Your task to perform on an android device: set the stopwatch Image 0: 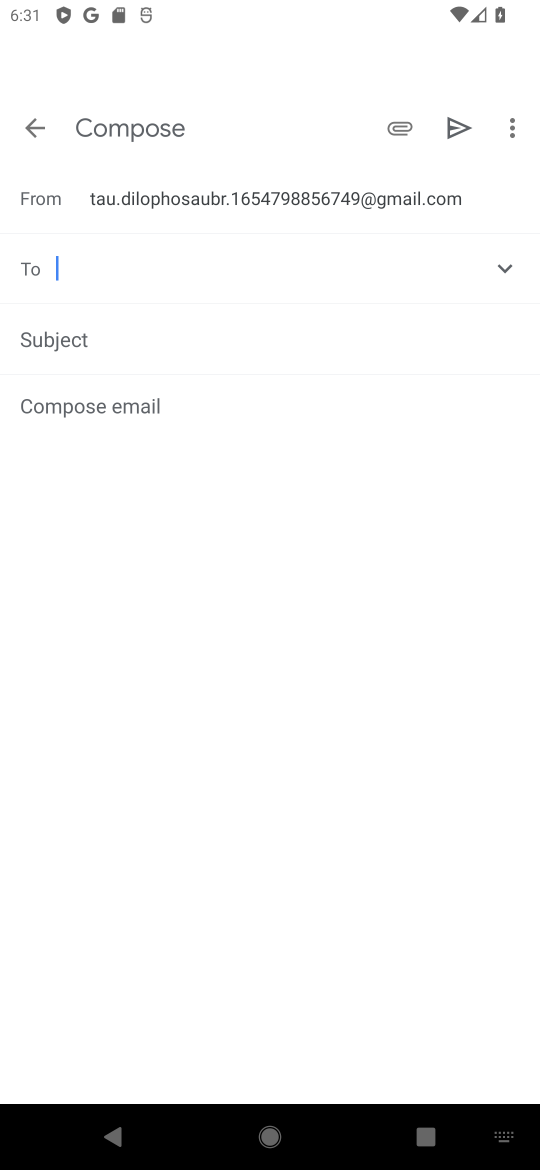
Step 0: press home button
Your task to perform on an android device: set the stopwatch Image 1: 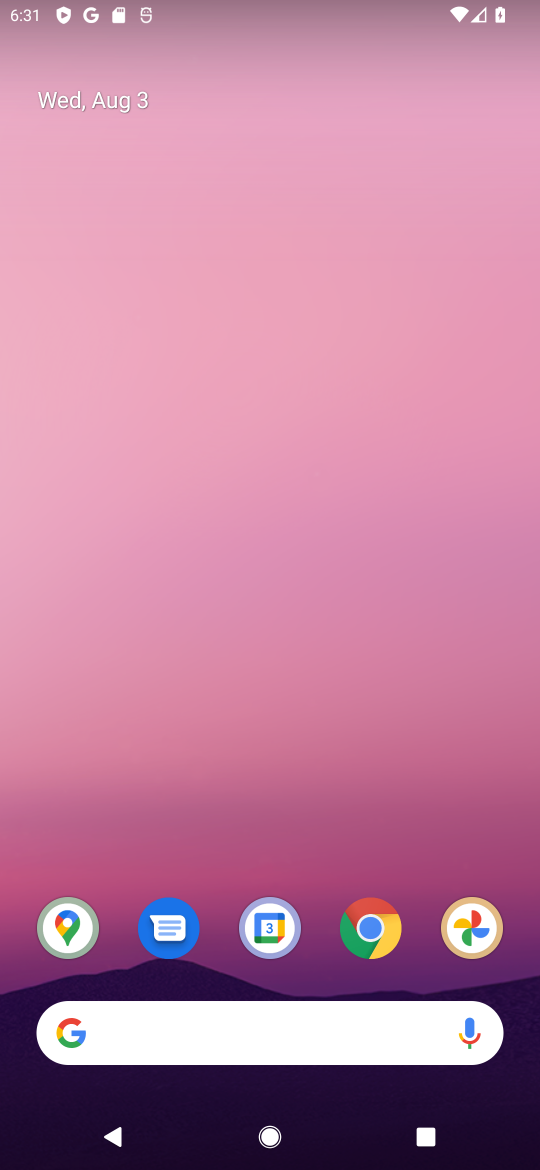
Step 1: drag from (339, 844) to (375, 228)
Your task to perform on an android device: set the stopwatch Image 2: 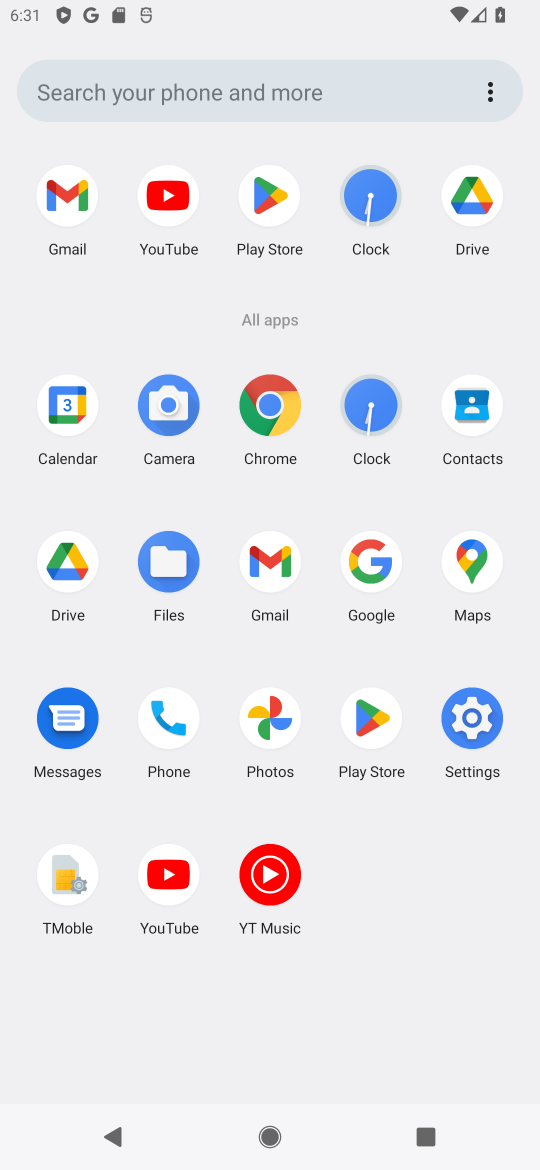
Step 2: click (377, 416)
Your task to perform on an android device: set the stopwatch Image 3: 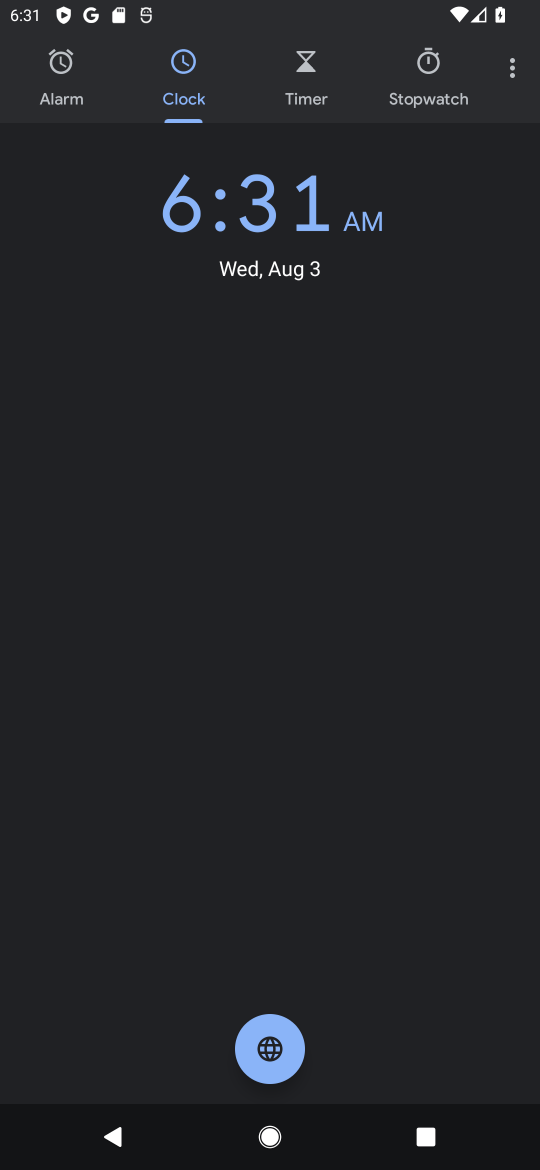
Step 3: click (428, 79)
Your task to perform on an android device: set the stopwatch Image 4: 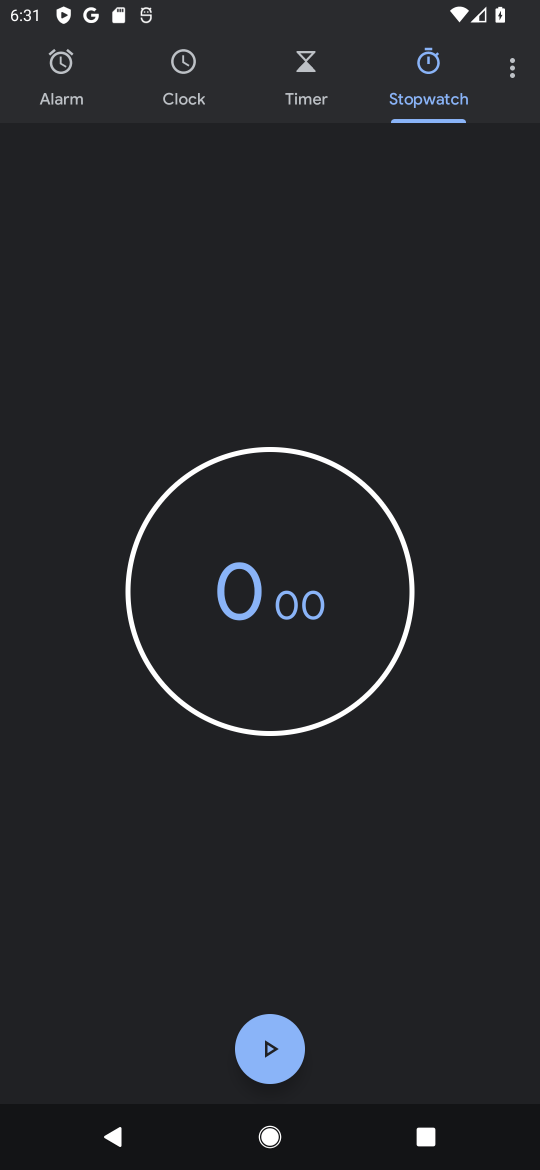
Step 4: click (275, 1052)
Your task to perform on an android device: set the stopwatch Image 5: 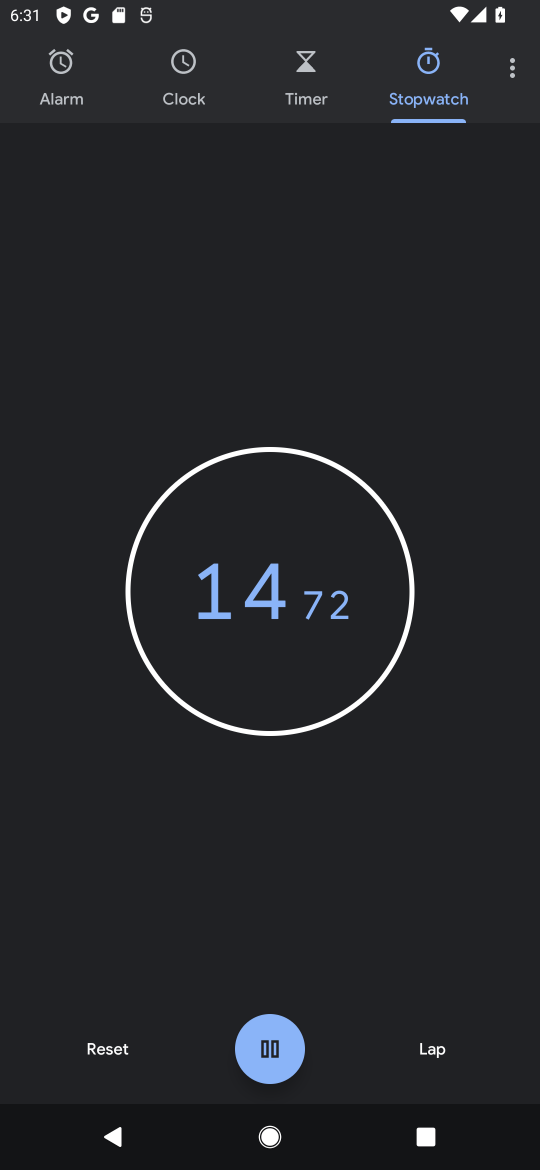
Step 5: task complete